Your task to perform on an android device: What's the weather today? Image 0: 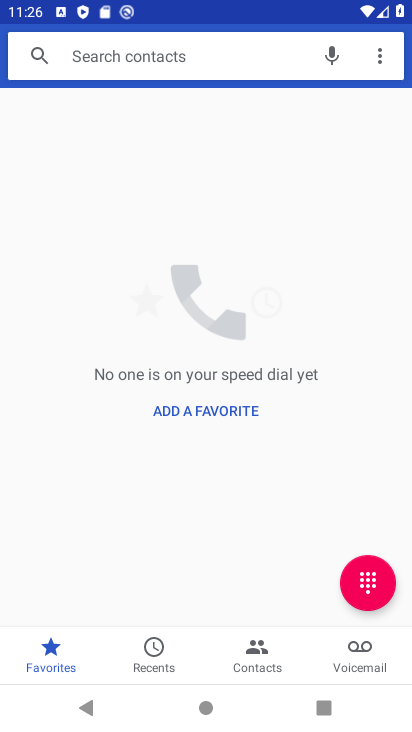
Step 0: press home button
Your task to perform on an android device: What's the weather today? Image 1: 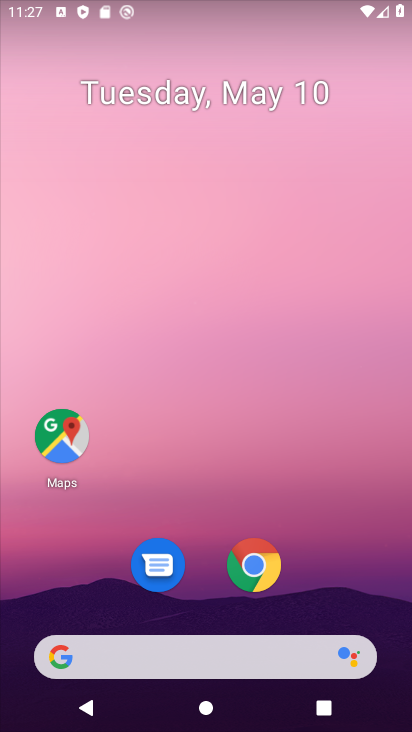
Step 1: click (144, 658)
Your task to perform on an android device: What's the weather today? Image 2: 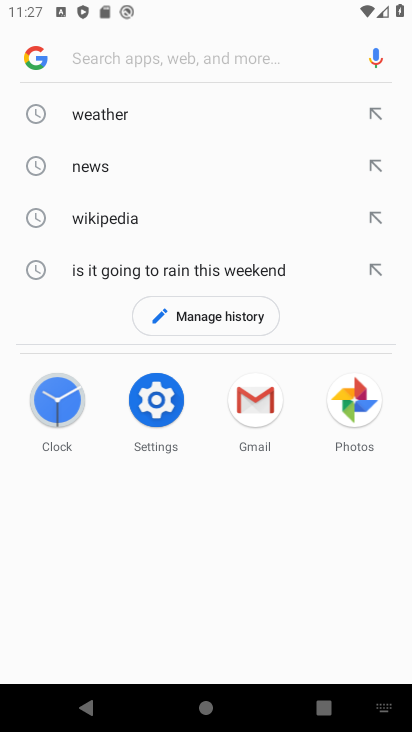
Step 2: click (160, 122)
Your task to perform on an android device: What's the weather today? Image 3: 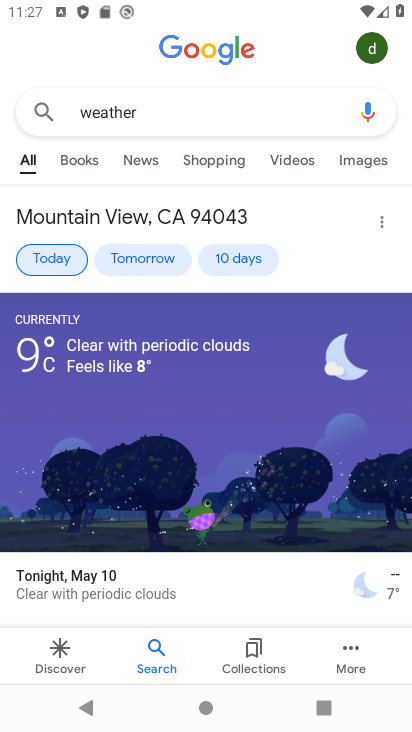
Step 3: click (60, 258)
Your task to perform on an android device: What's the weather today? Image 4: 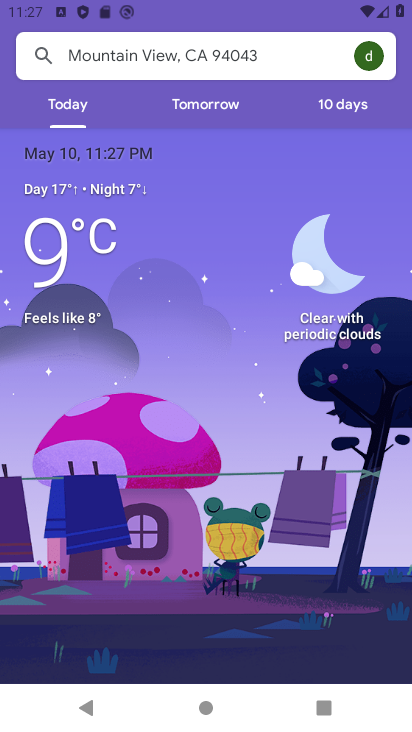
Step 4: task complete